Your task to perform on an android device: Open calendar and show me the fourth week of next month Image 0: 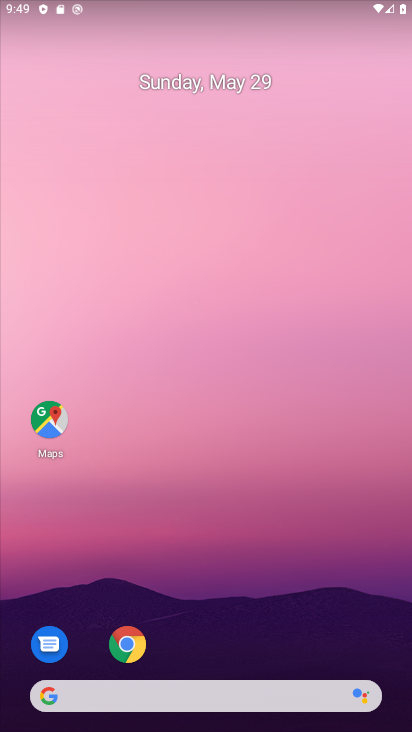
Step 0: drag from (136, 730) to (166, 82)
Your task to perform on an android device: Open calendar and show me the fourth week of next month Image 1: 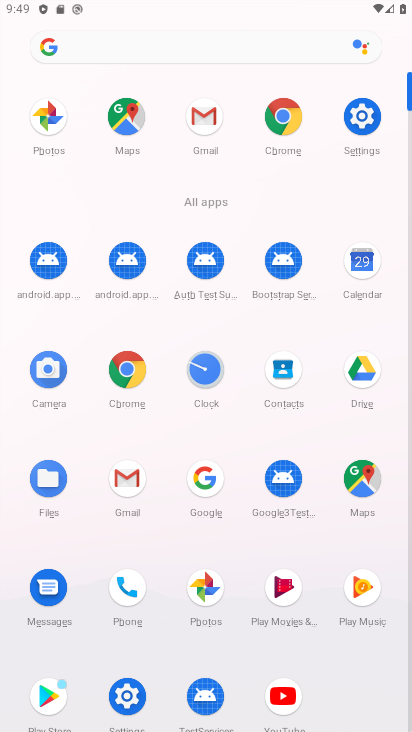
Step 1: click (374, 269)
Your task to perform on an android device: Open calendar and show me the fourth week of next month Image 2: 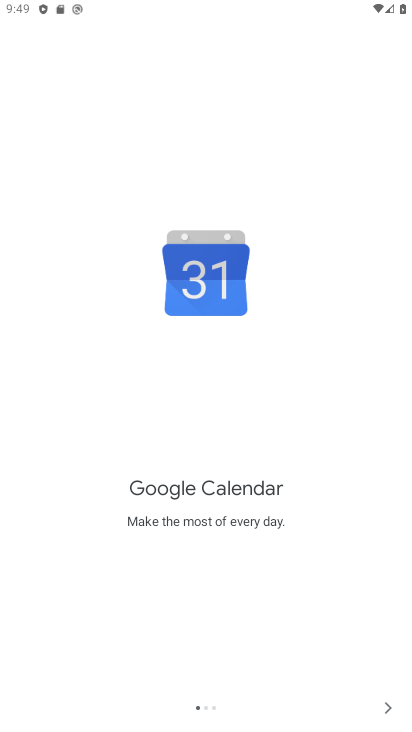
Step 2: click (386, 707)
Your task to perform on an android device: Open calendar and show me the fourth week of next month Image 3: 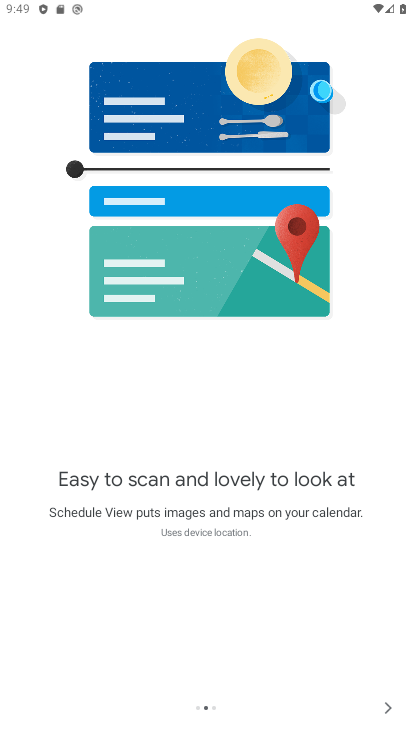
Step 3: click (386, 707)
Your task to perform on an android device: Open calendar and show me the fourth week of next month Image 4: 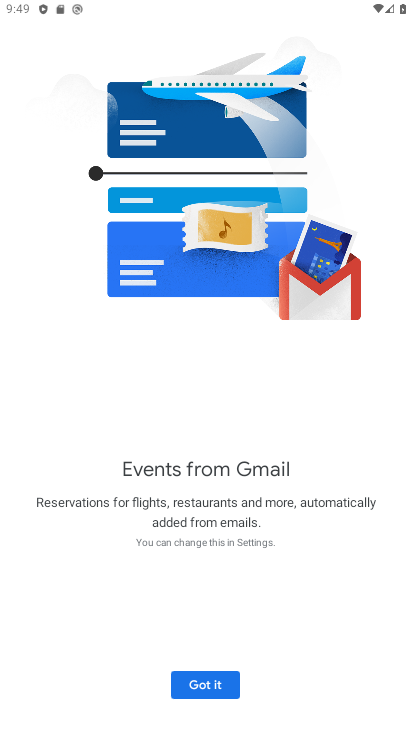
Step 4: click (206, 691)
Your task to perform on an android device: Open calendar and show me the fourth week of next month Image 5: 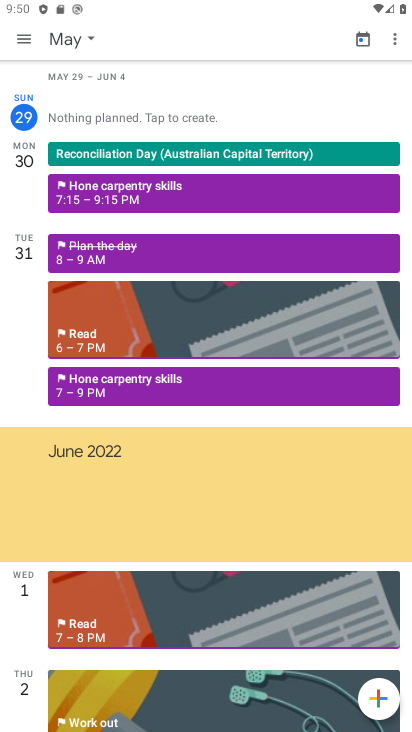
Step 5: click (91, 40)
Your task to perform on an android device: Open calendar and show me the fourth week of next month Image 6: 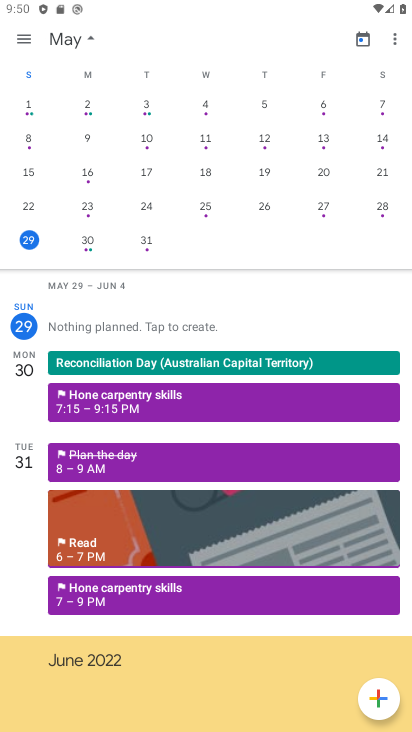
Step 6: drag from (383, 244) to (0, 215)
Your task to perform on an android device: Open calendar and show me the fourth week of next month Image 7: 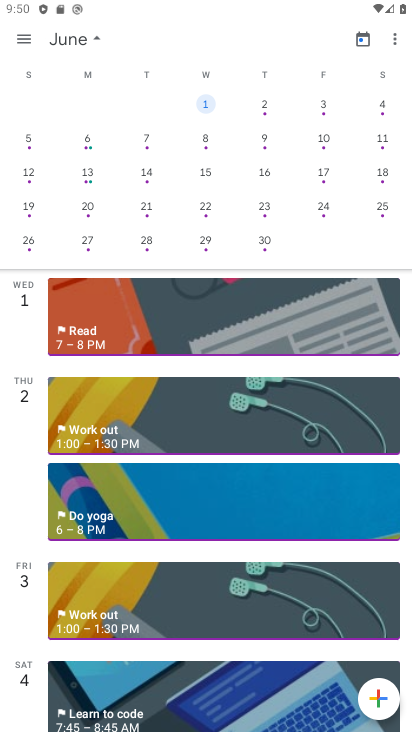
Step 7: click (97, 37)
Your task to perform on an android device: Open calendar and show me the fourth week of next month Image 8: 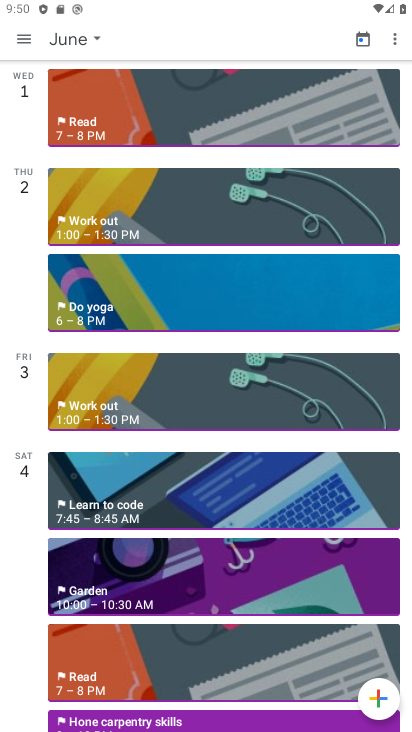
Step 8: click (28, 40)
Your task to perform on an android device: Open calendar and show me the fourth week of next month Image 9: 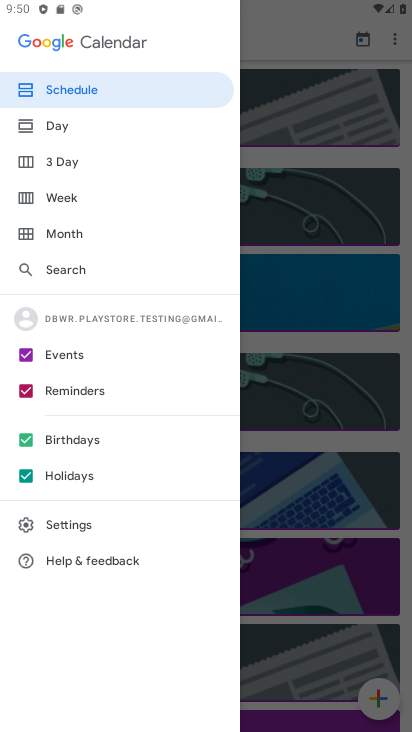
Step 9: click (87, 201)
Your task to perform on an android device: Open calendar and show me the fourth week of next month Image 10: 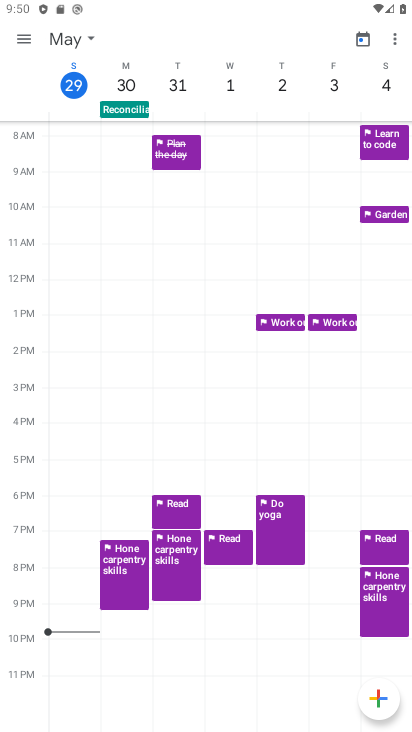
Step 10: task complete